Your task to perform on an android device: remove spam from my inbox in the gmail app Image 0: 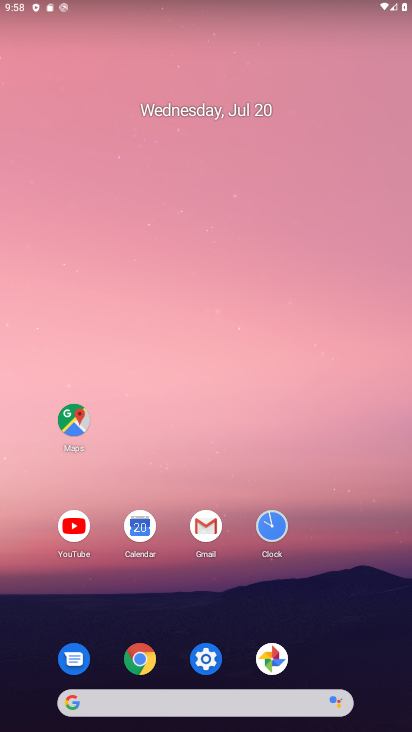
Step 0: click (208, 524)
Your task to perform on an android device: remove spam from my inbox in the gmail app Image 1: 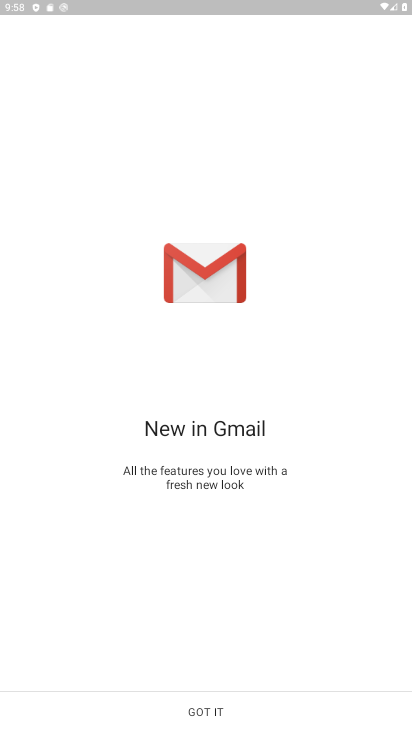
Step 1: click (209, 711)
Your task to perform on an android device: remove spam from my inbox in the gmail app Image 2: 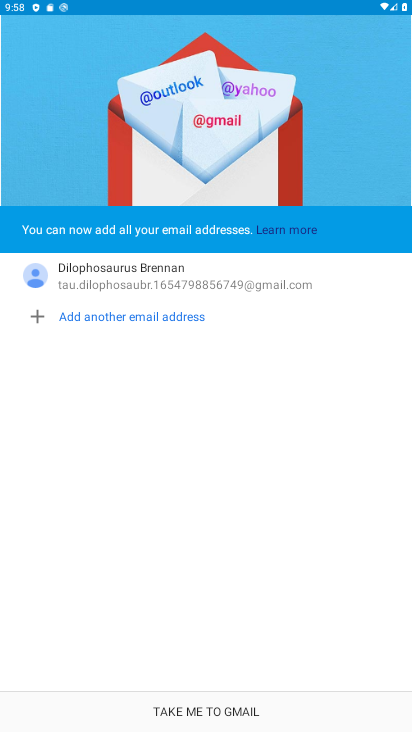
Step 2: click (202, 714)
Your task to perform on an android device: remove spam from my inbox in the gmail app Image 3: 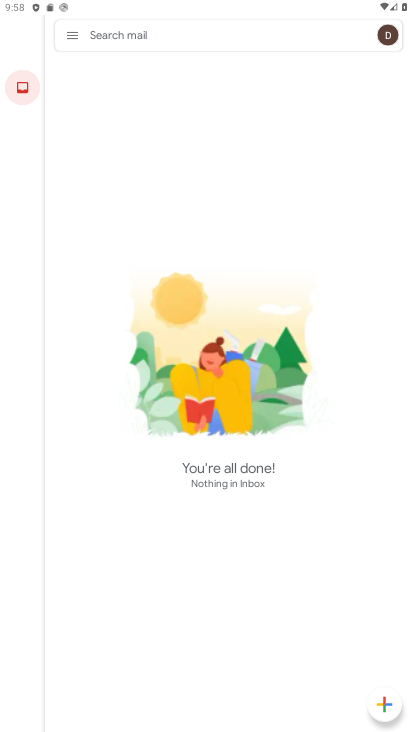
Step 3: click (71, 31)
Your task to perform on an android device: remove spam from my inbox in the gmail app Image 4: 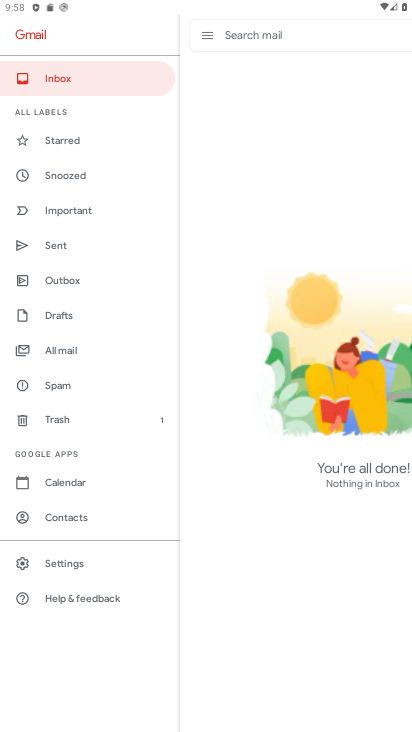
Step 4: click (49, 387)
Your task to perform on an android device: remove spam from my inbox in the gmail app Image 5: 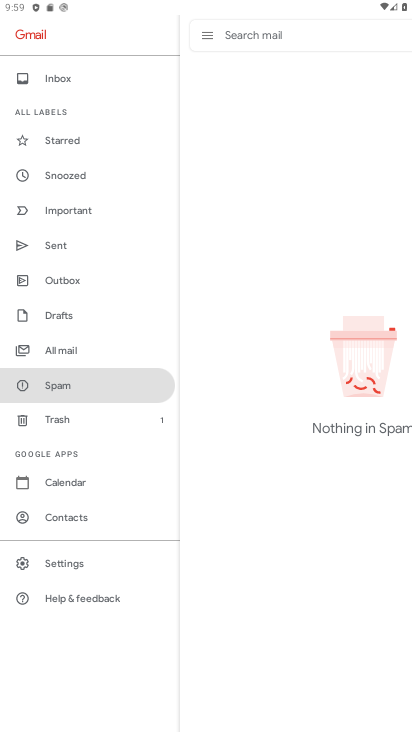
Step 5: task complete